Your task to perform on an android device: What is the recent news? Image 0: 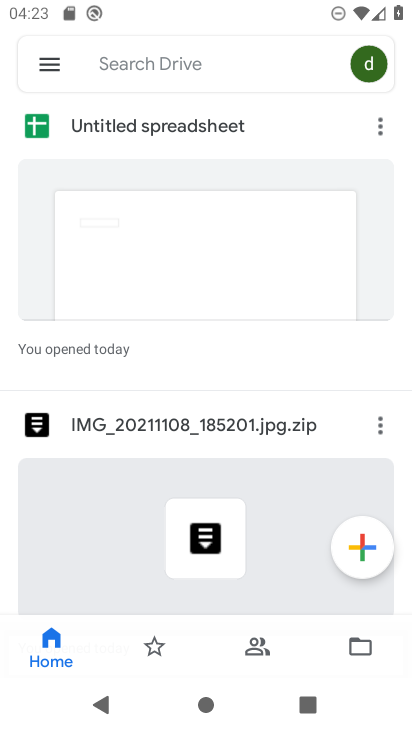
Step 0: press home button
Your task to perform on an android device: What is the recent news? Image 1: 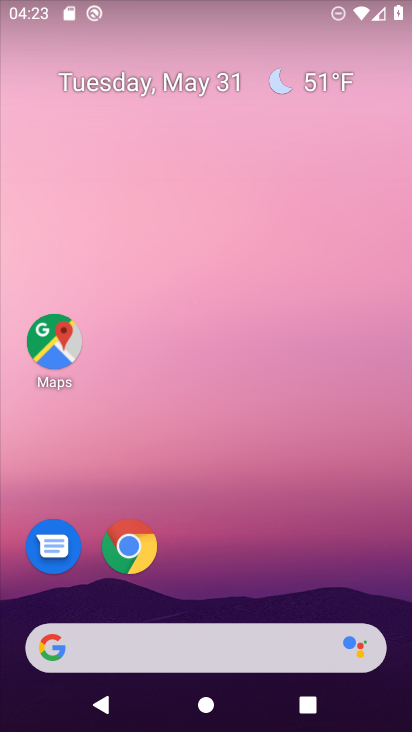
Step 1: drag from (172, 611) to (214, 216)
Your task to perform on an android device: What is the recent news? Image 2: 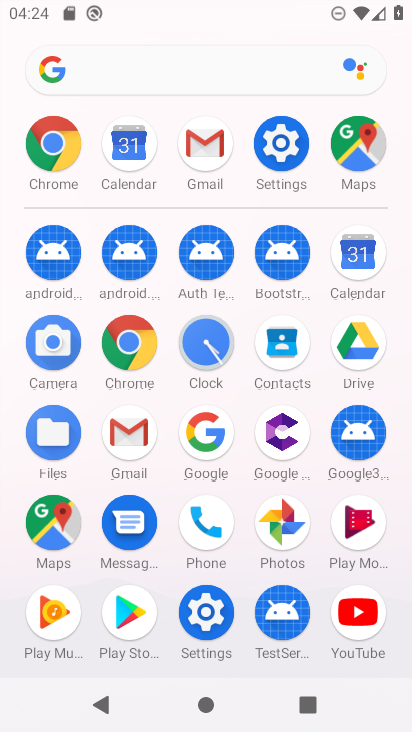
Step 2: click (201, 450)
Your task to perform on an android device: What is the recent news? Image 3: 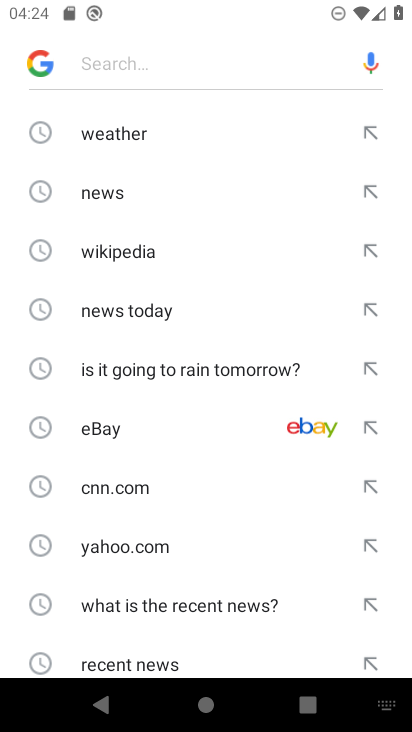
Step 3: click (146, 665)
Your task to perform on an android device: What is the recent news? Image 4: 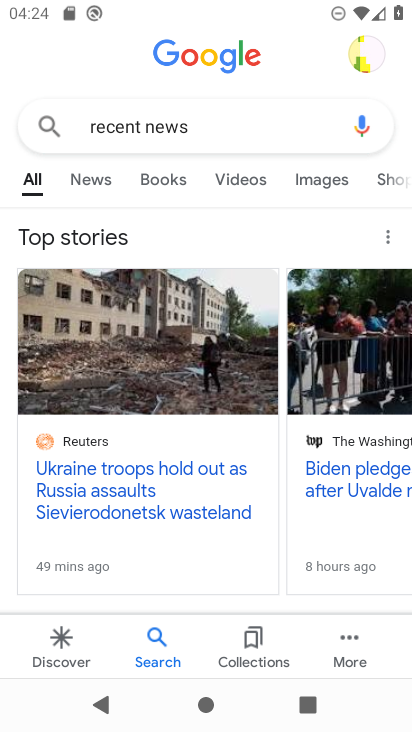
Step 4: task complete